Your task to perform on an android device: change the clock display to analog Image 0: 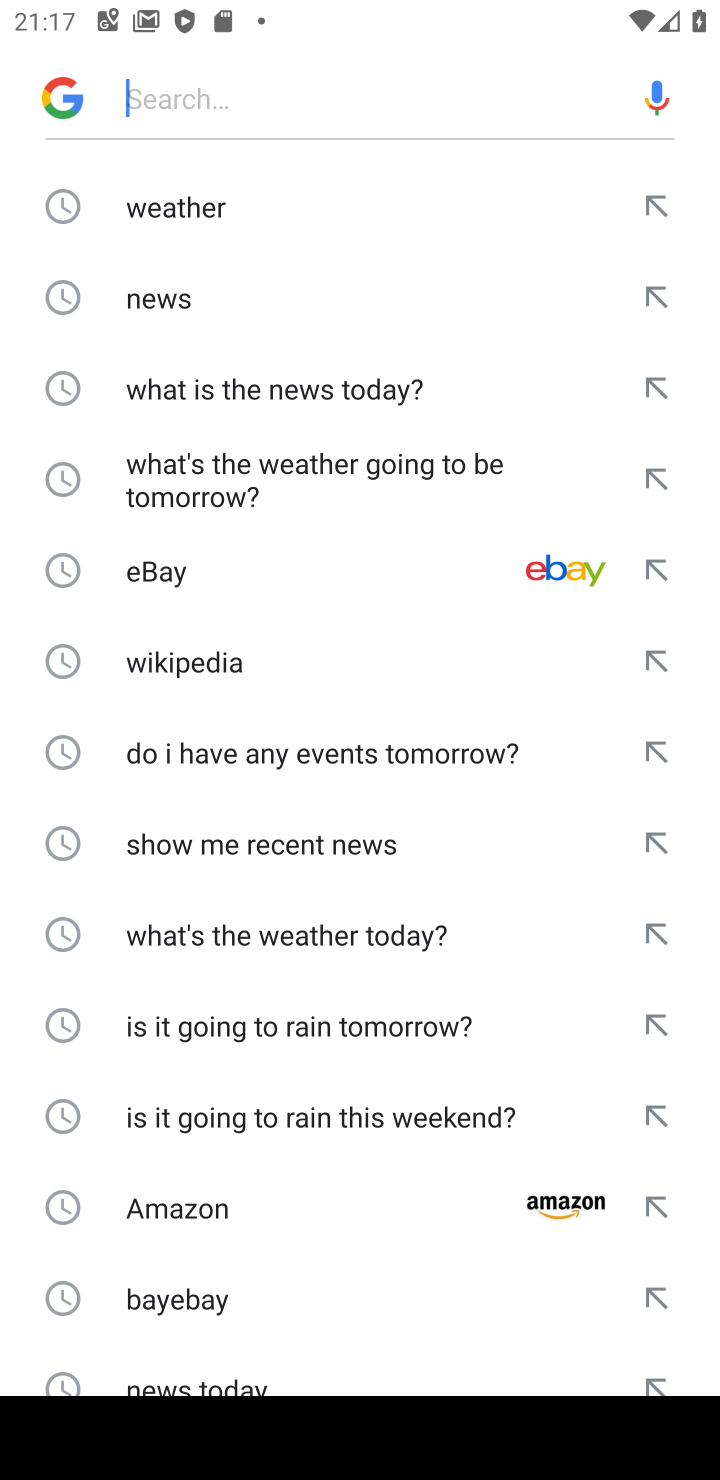
Step 0: press home button
Your task to perform on an android device: change the clock display to analog Image 1: 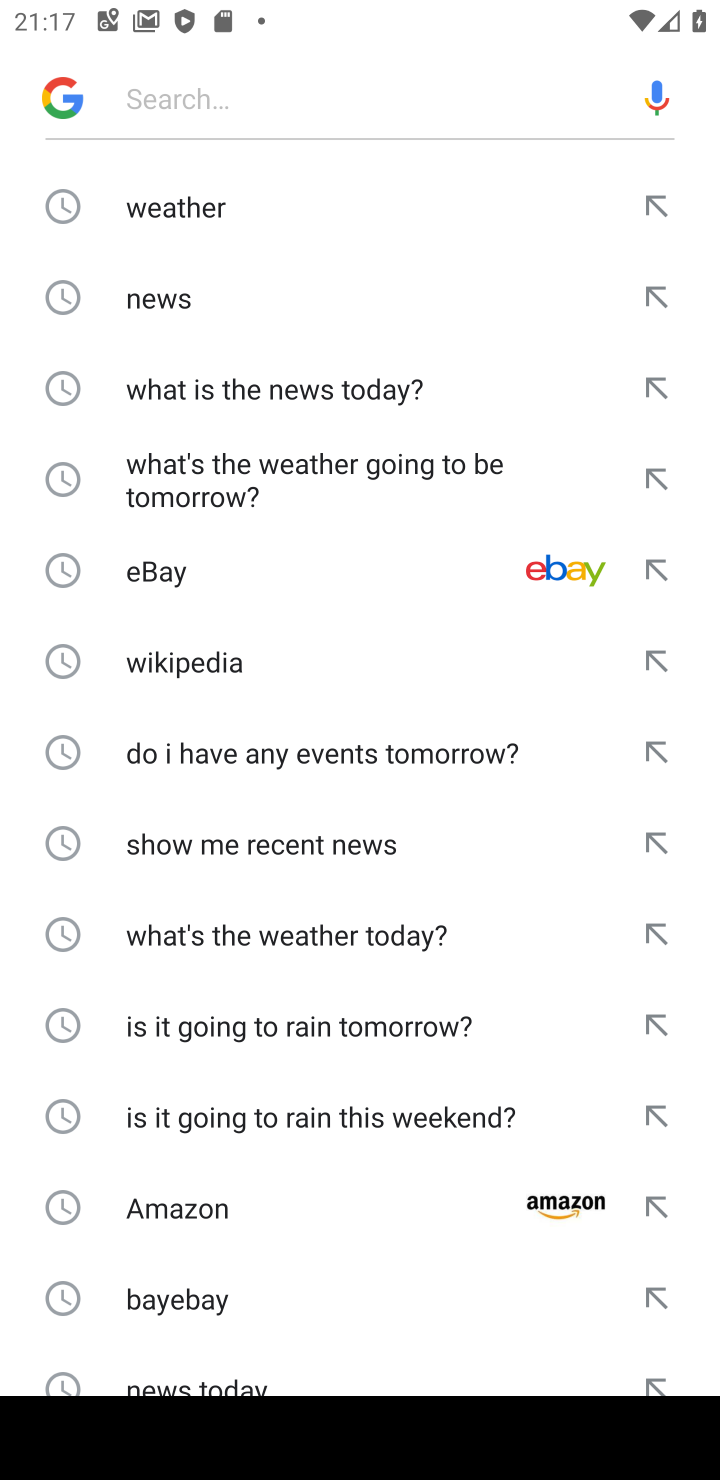
Step 1: press home button
Your task to perform on an android device: change the clock display to analog Image 2: 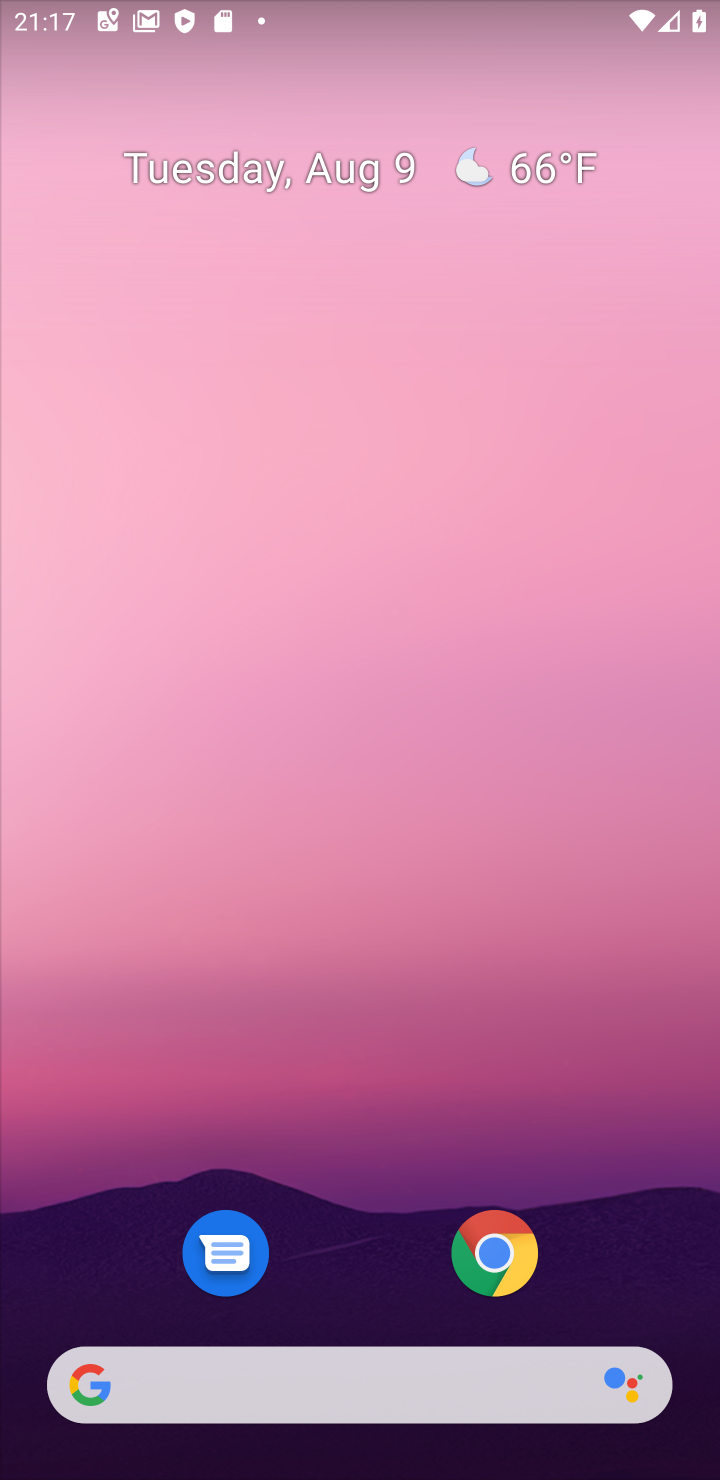
Step 2: drag from (266, 1149) to (255, 59)
Your task to perform on an android device: change the clock display to analog Image 3: 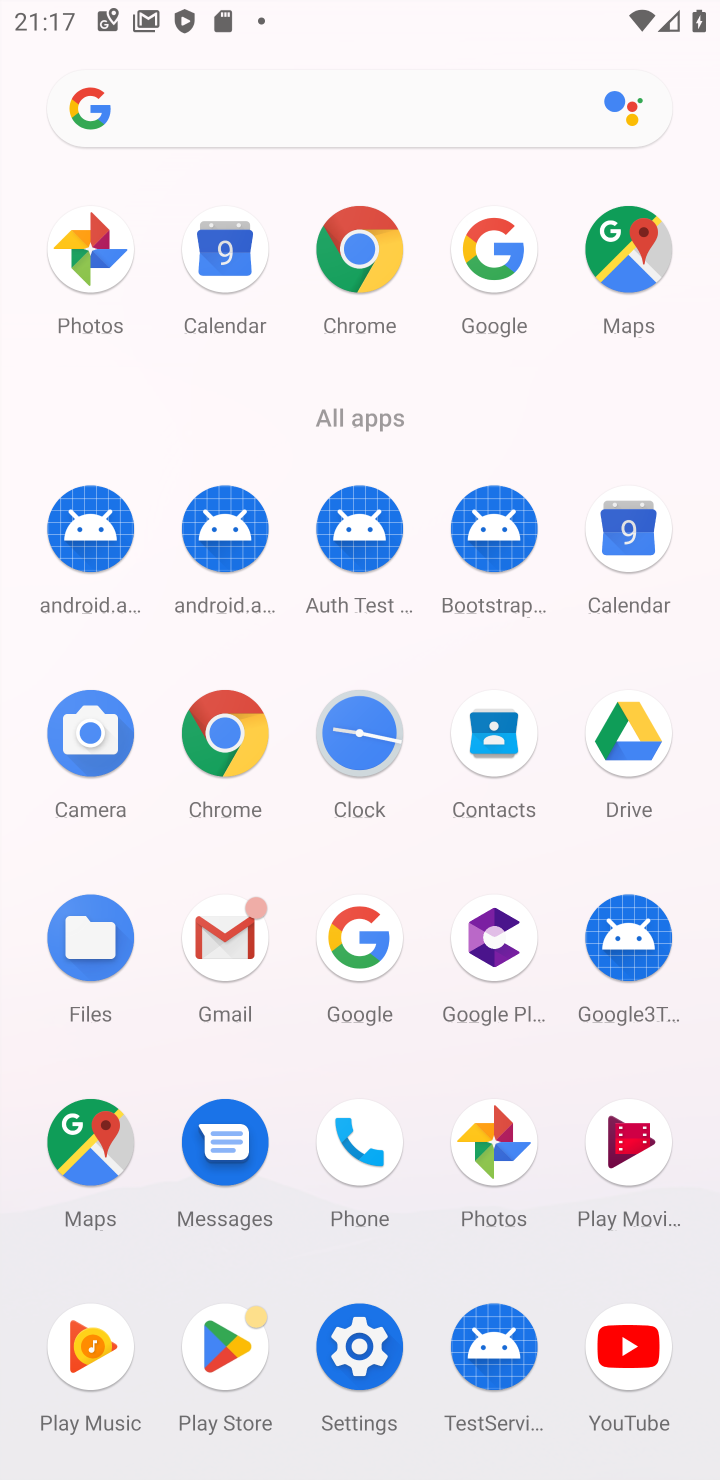
Step 3: click (355, 708)
Your task to perform on an android device: change the clock display to analog Image 4: 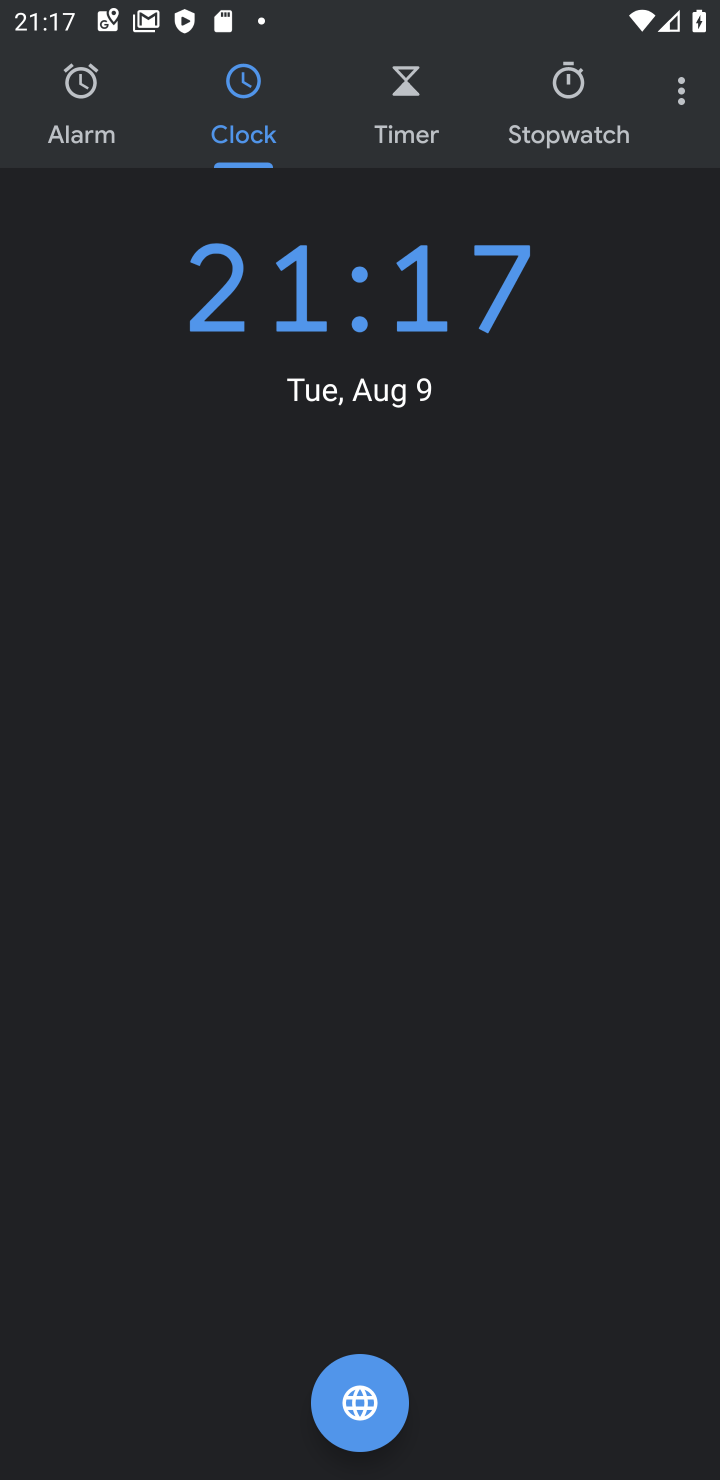
Step 4: click (681, 79)
Your task to perform on an android device: change the clock display to analog Image 5: 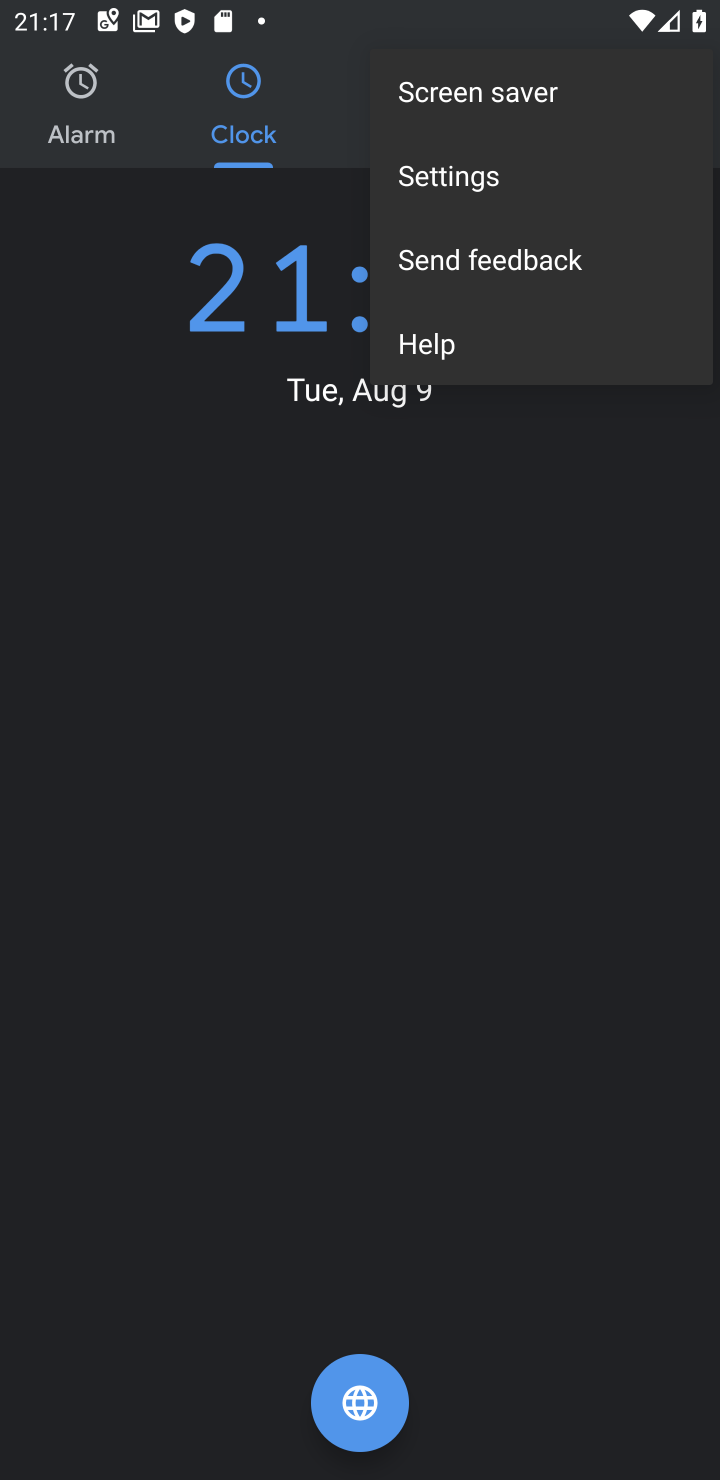
Step 5: click (495, 163)
Your task to perform on an android device: change the clock display to analog Image 6: 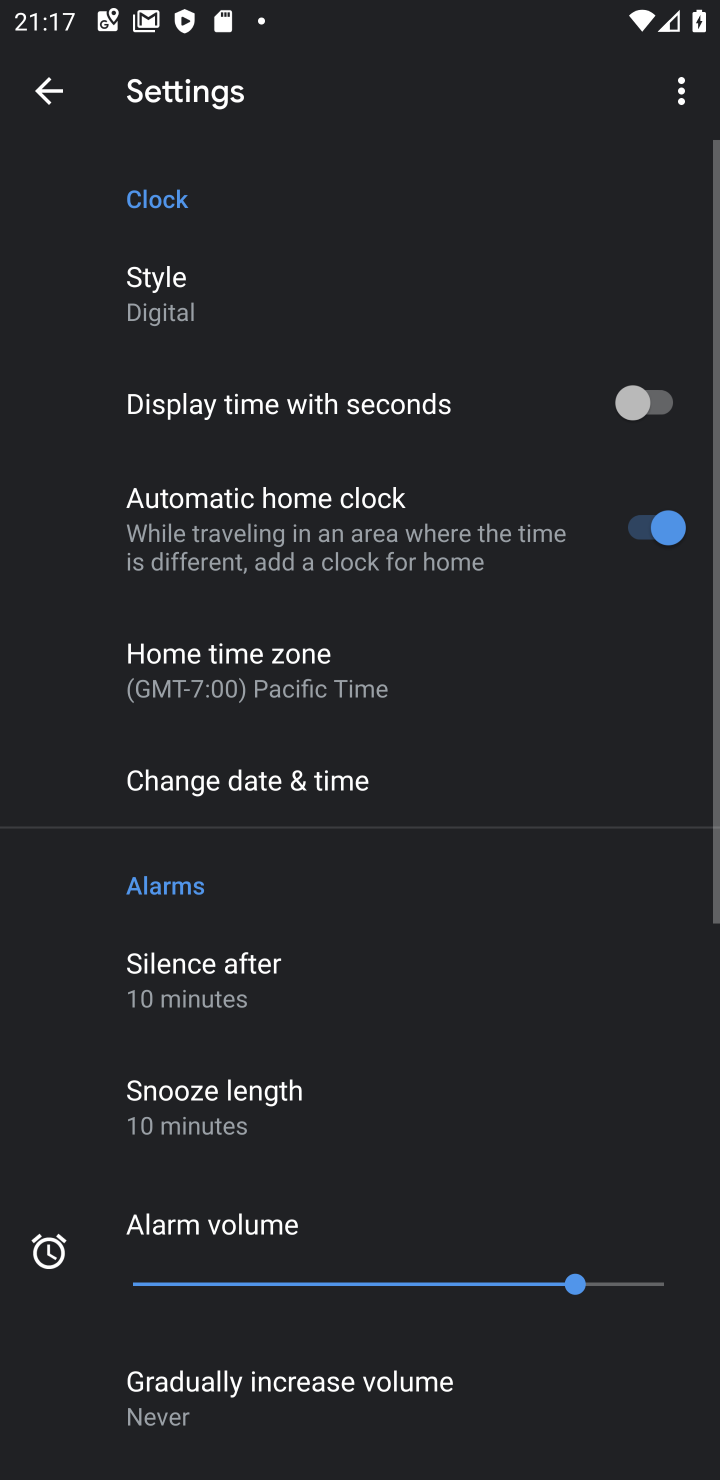
Step 6: click (229, 276)
Your task to perform on an android device: change the clock display to analog Image 7: 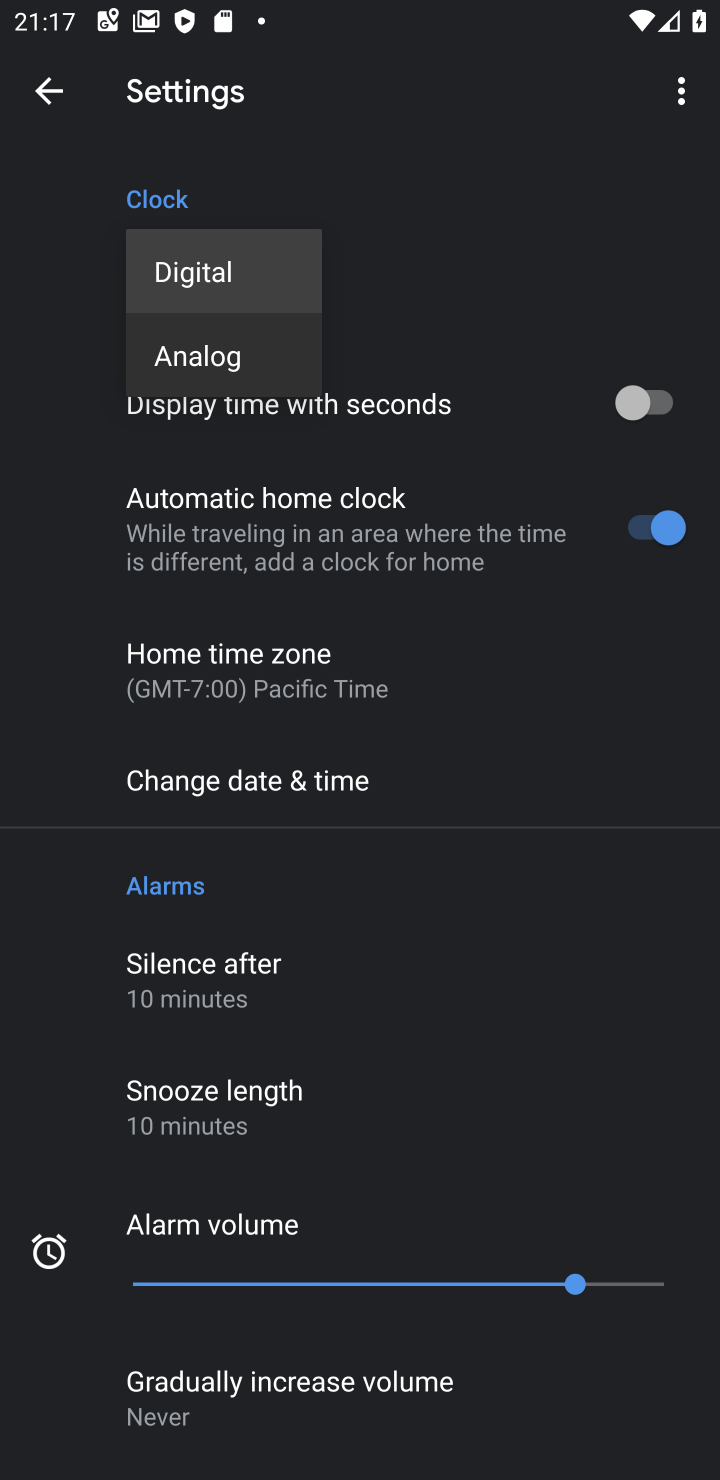
Step 7: click (221, 353)
Your task to perform on an android device: change the clock display to analog Image 8: 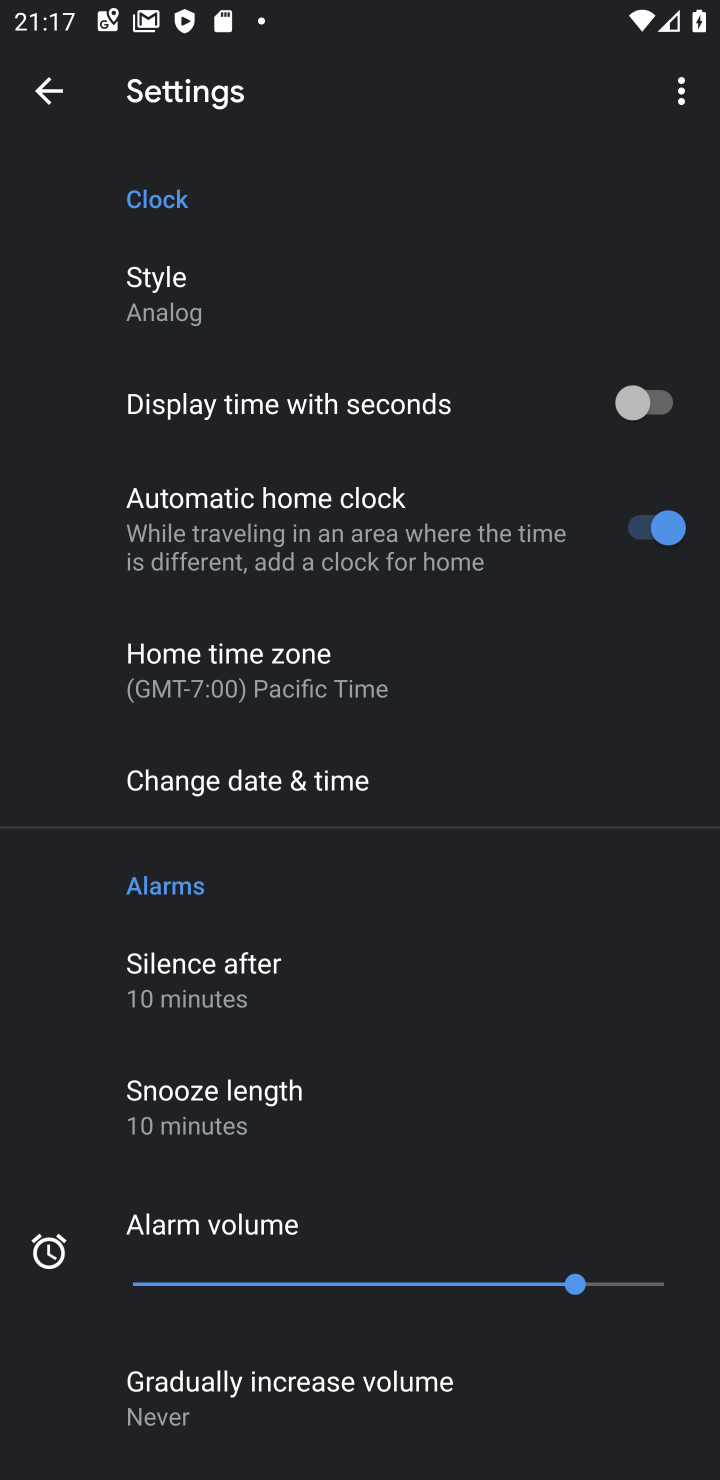
Step 8: task complete